Your task to perform on an android device: set default search engine in the chrome app Image 0: 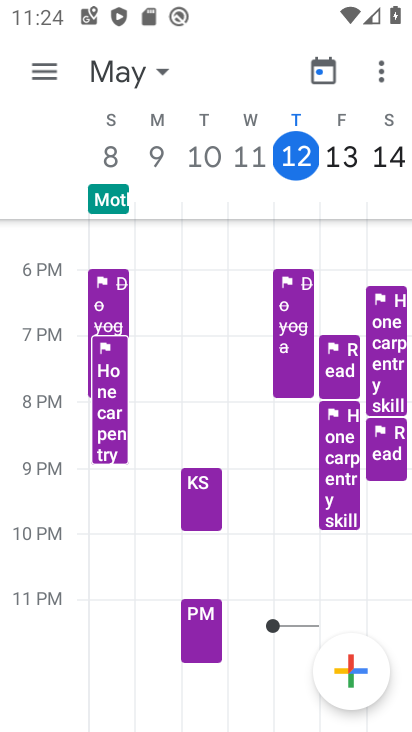
Step 0: press home button
Your task to perform on an android device: set default search engine in the chrome app Image 1: 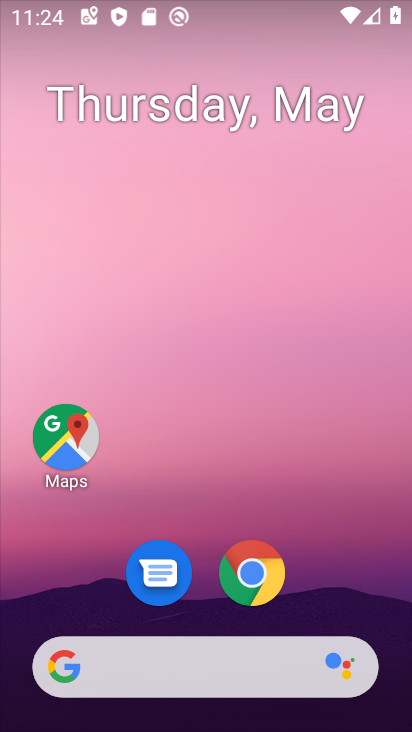
Step 1: click (270, 579)
Your task to perform on an android device: set default search engine in the chrome app Image 2: 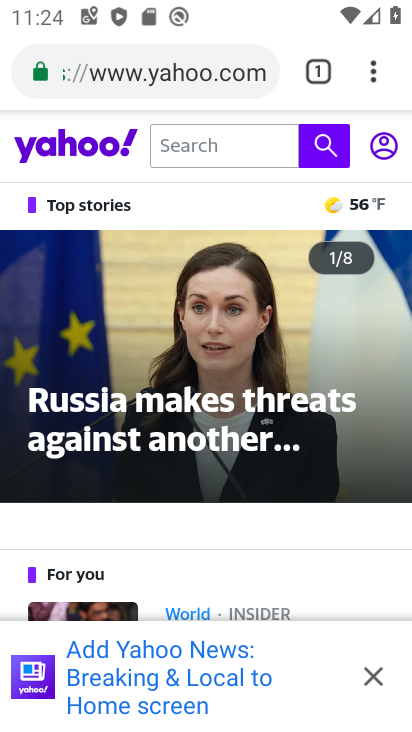
Step 2: click (372, 77)
Your task to perform on an android device: set default search engine in the chrome app Image 3: 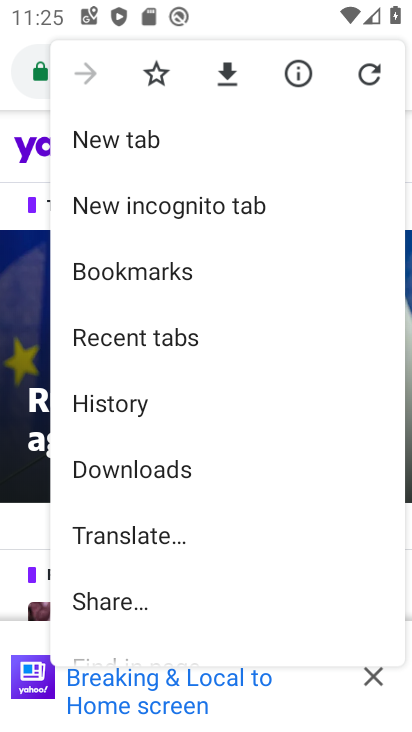
Step 3: drag from (222, 502) to (184, 292)
Your task to perform on an android device: set default search engine in the chrome app Image 4: 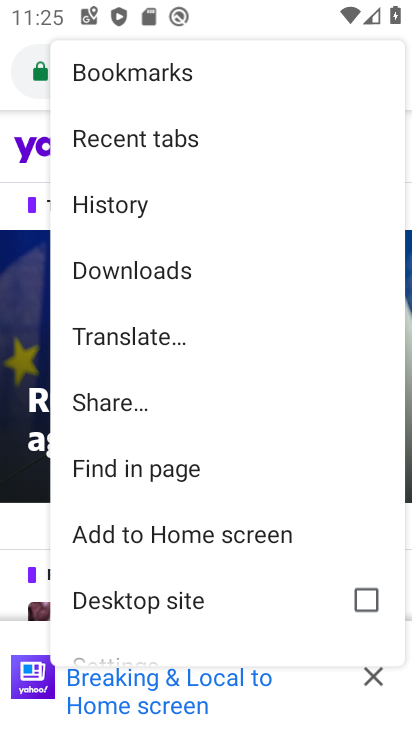
Step 4: drag from (246, 480) to (211, 264)
Your task to perform on an android device: set default search engine in the chrome app Image 5: 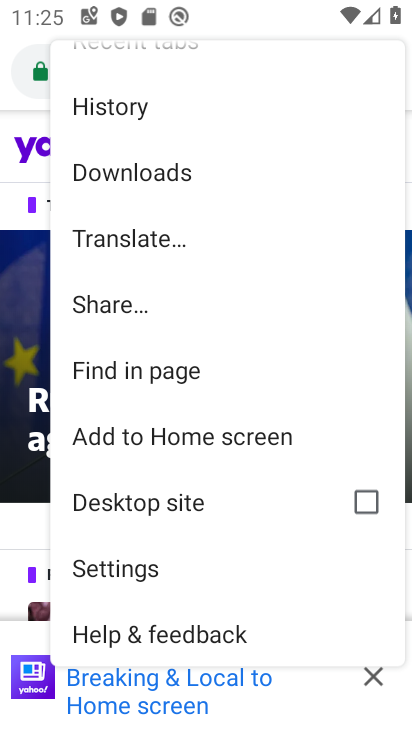
Step 5: click (156, 568)
Your task to perform on an android device: set default search engine in the chrome app Image 6: 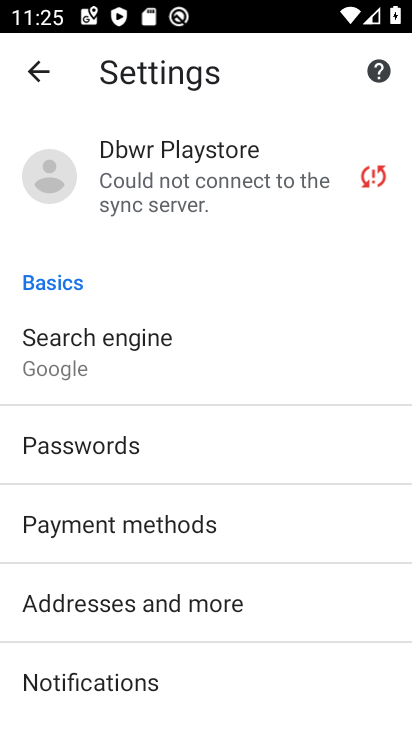
Step 6: click (154, 351)
Your task to perform on an android device: set default search engine in the chrome app Image 7: 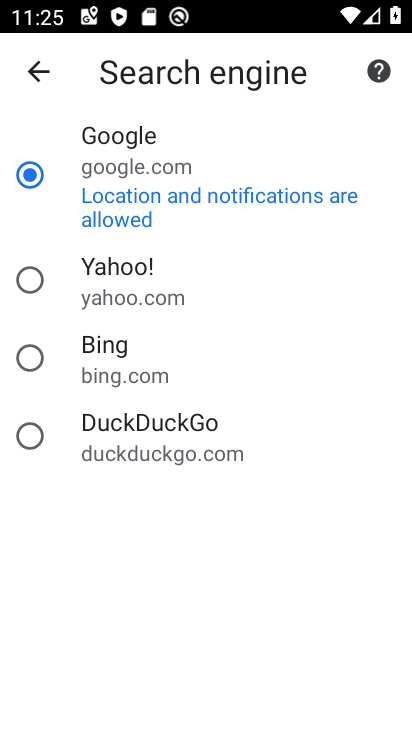
Step 7: click (121, 301)
Your task to perform on an android device: set default search engine in the chrome app Image 8: 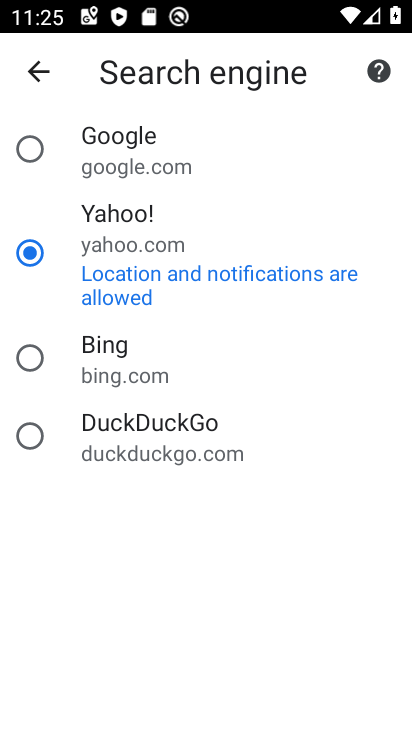
Step 8: task complete